Your task to perform on an android device: set the stopwatch Image 0: 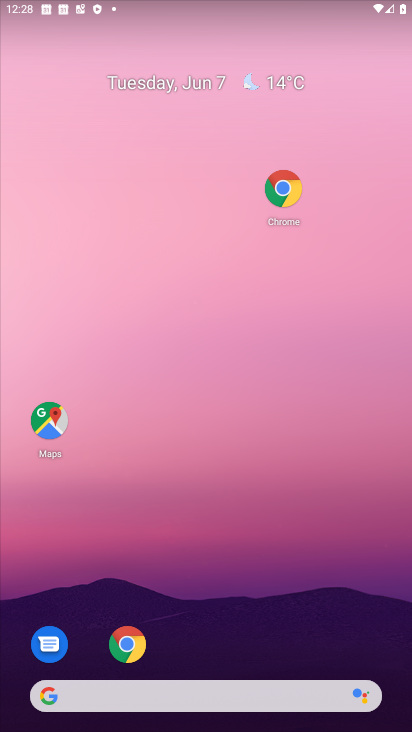
Step 0: click (286, 188)
Your task to perform on an android device: set the stopwatch Image 1: 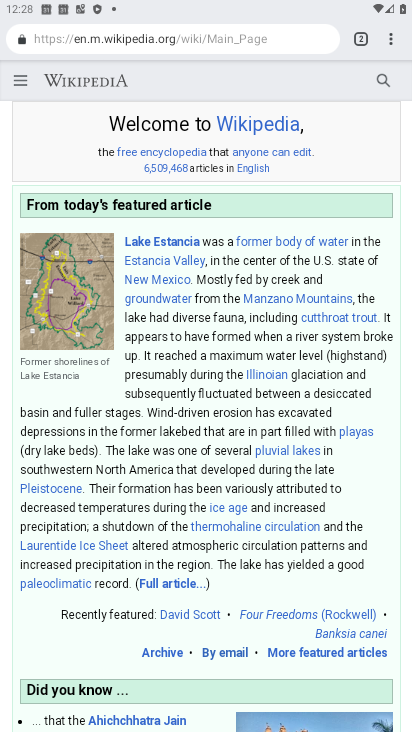
Step 1: press home button
Your task to perform on an android device: set the stopwatch Image 2: 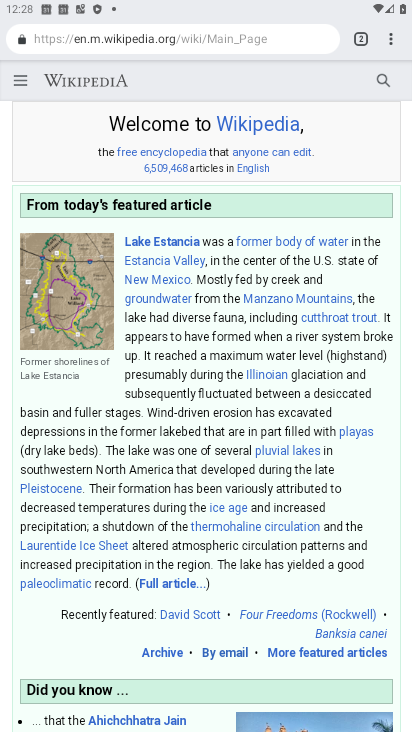
Step 2: press home button
Your task to perform on an android device: set the stopwatch Image 3: 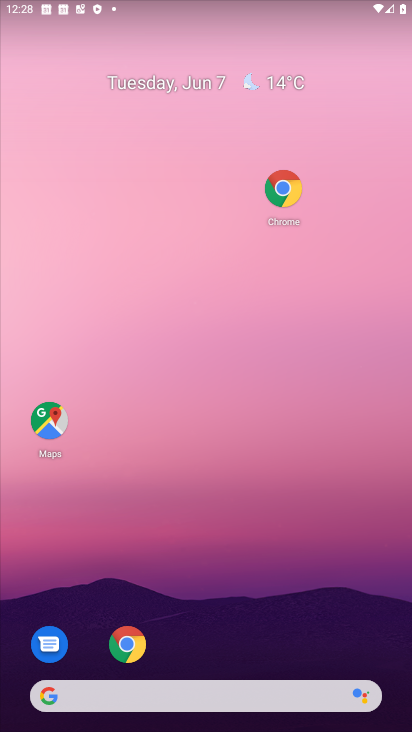
Step 3: drag from (270, 401) to (241, 114)
Your task to perform on an android device: set the stopwatch Image 4: 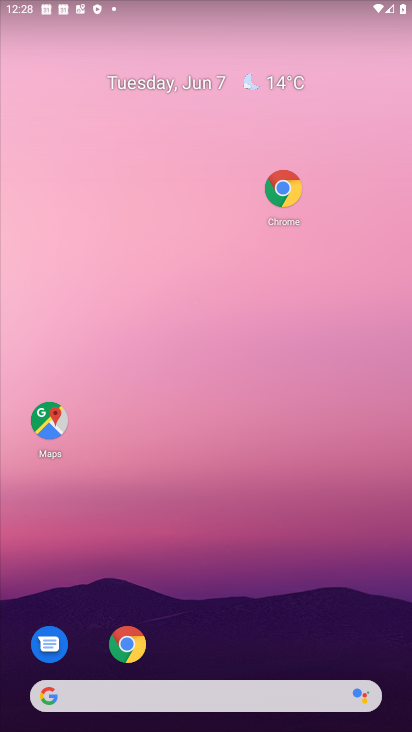
Step 4: drag from (243, 552) to (203, 34)
Your task to perform on an android device: set the stopwatch Image 5: 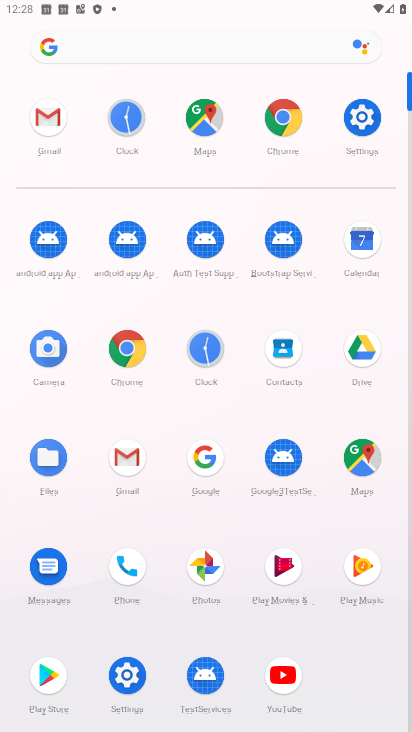
Step 5: click (208, 349)
Your task to perform on an android device: set the stopwatch Image 6: 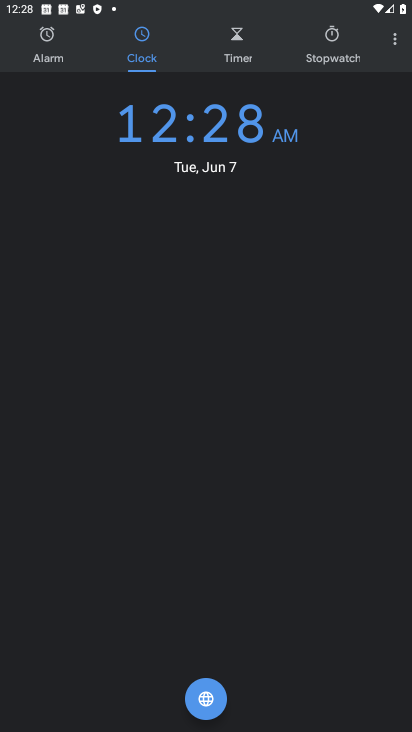
Step 6: click (323, 56)
Your task to perform on an android device: set the stopwatch Image 7: 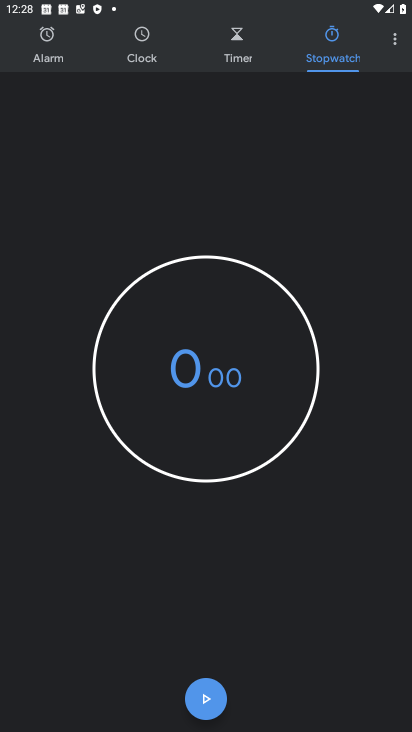
Step 7: click (213, 700)
Your task to perform on an android device: set the stopwatch Image 8: 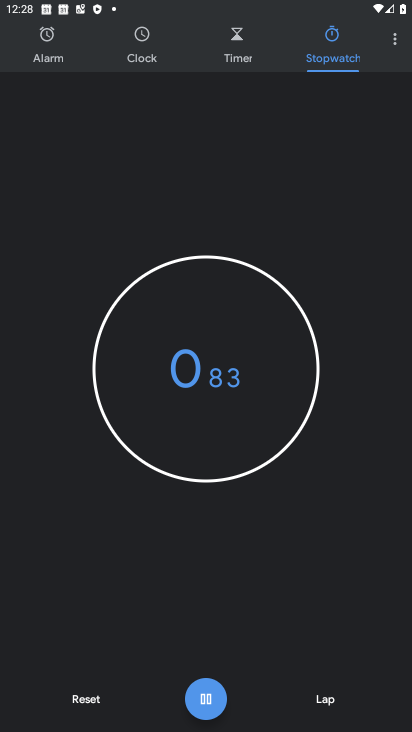
Step 8: click (213, 700)
Your task to perform on an android device: set the stopwatch Image 9: 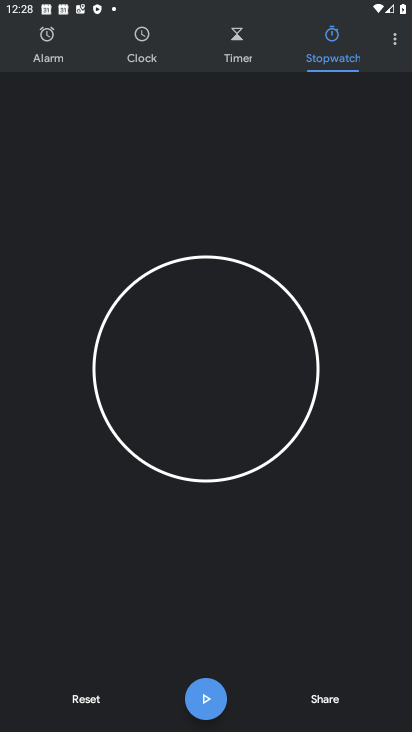
Step 9: task complete